Your task to perform on an android device: Play the last video I watched on Youtube Image 0: 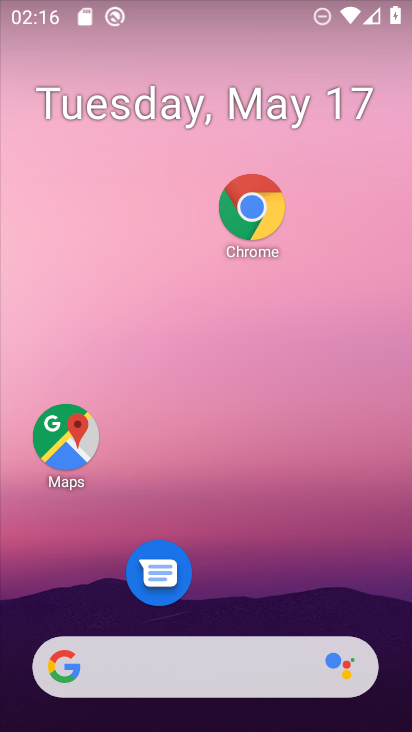
Step 0: drag from (305, 678) to (274, 52)
Your task to perform on an android device: Play the last video I watched on Youtube Image 1: 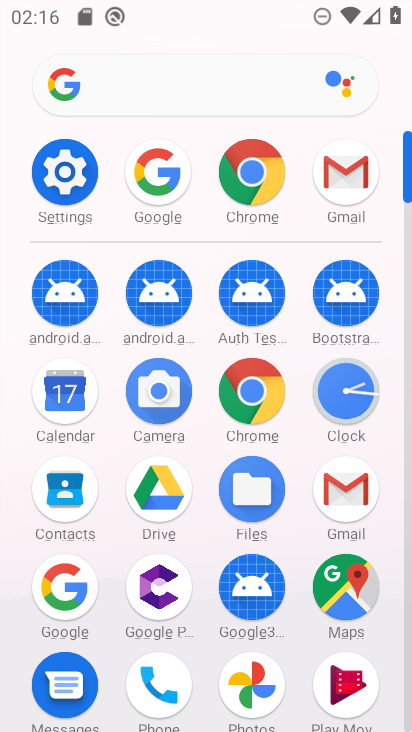
Step 1: drag from (300, 629) to (280, 208)
Your task to perform on an android device: Play the last video I watched on Youtube Image 2: 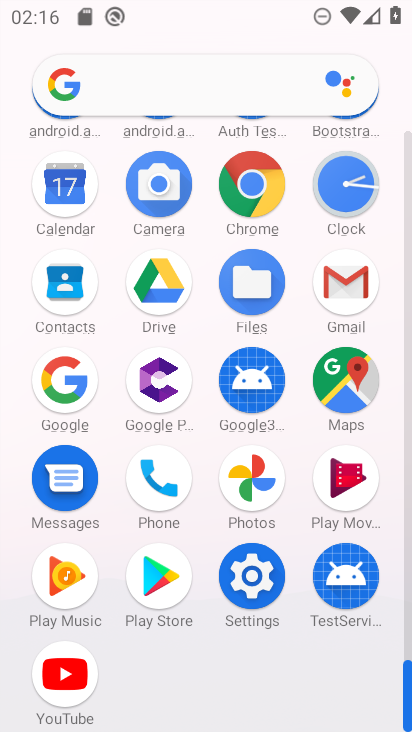
Step 2: click (57, 674)
Your task to perform on an android device: Play the last video I watched on Youtube Image 3: 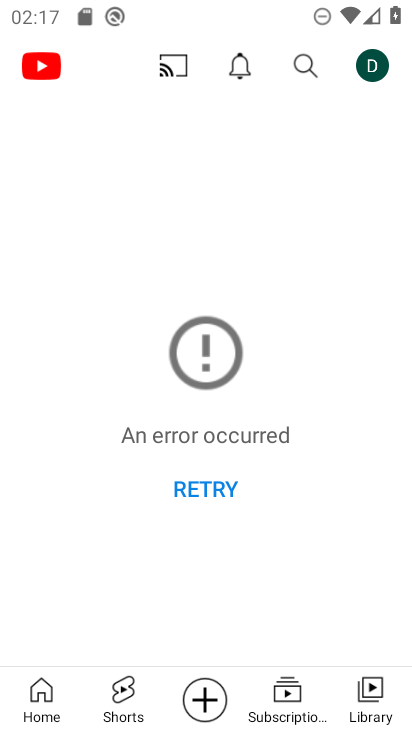
Step 3: click (360, 698)
Your task to perform on an android device: Play the last video I watched on Youtube Image 4: 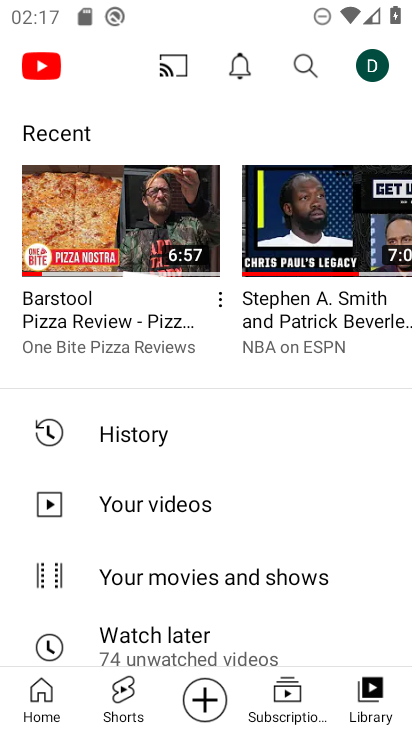
Step 4: click (109, 229)
Your task to perform on an android device: Play the last video I watched on Youtube Image 5: 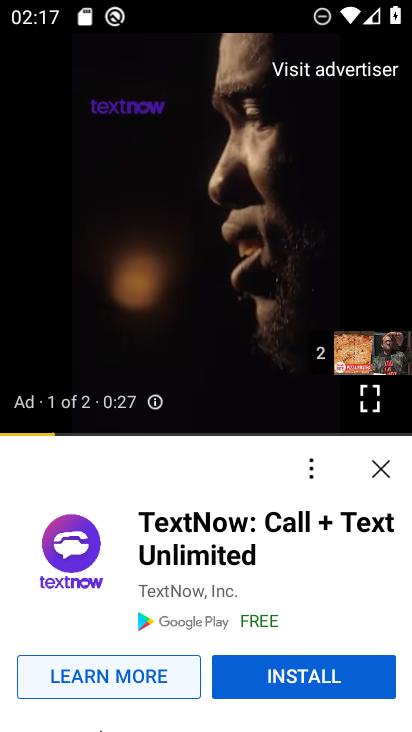
Step 5: task complete